Your task to perform on an android device: turn off airplane mode Image 0: 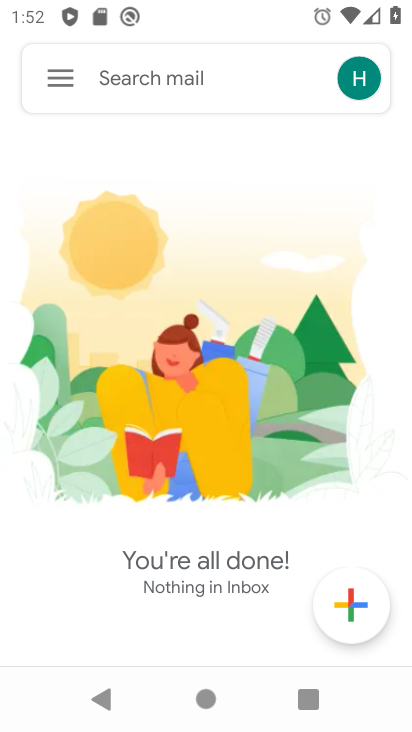
Step 0: press back button
Your task to perform on an android device: turn off airplane mode Image 1: 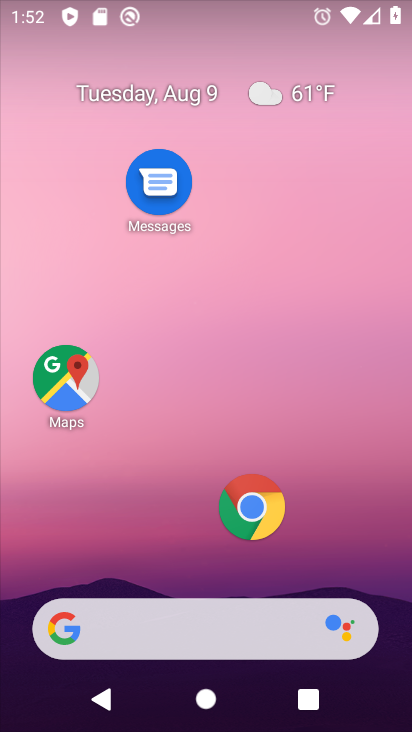
Step 1: task complete